Your task to perform on an android device: find which apps use the phone's location Image 0: 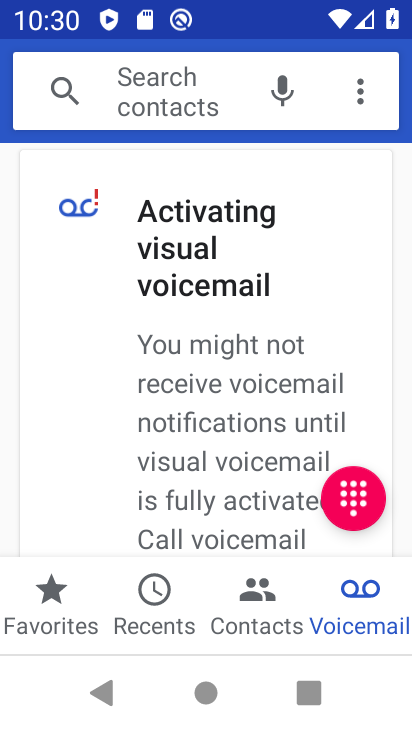
Step 0: press home button
Your task to perform on an android device: find which apps use the phone's location Image 1: 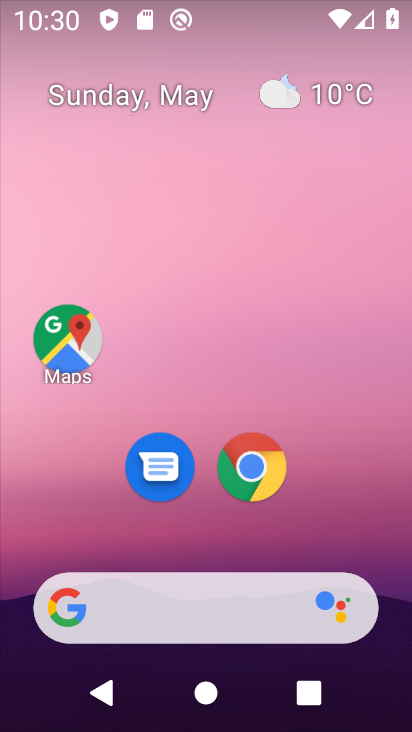
Step 1: drag from (262, 559) to (268, 1)
Your task to perform on an android device: find which apps use the phone's location Image 2: 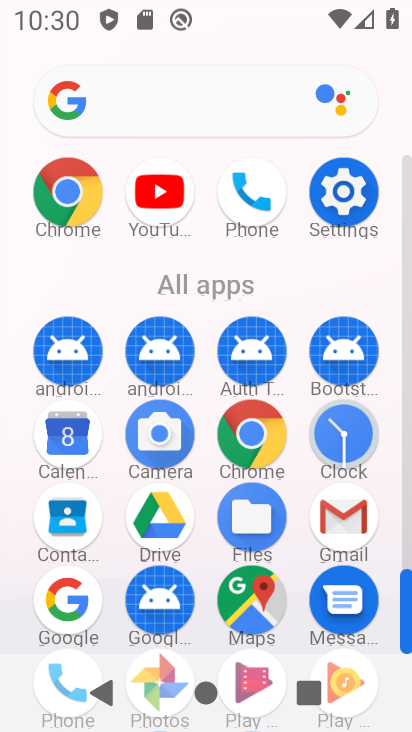
Step 2: drag from (336, 203) to (79, 243)
Your task to perform on an android device: find which apps use the phone's location Image 3: 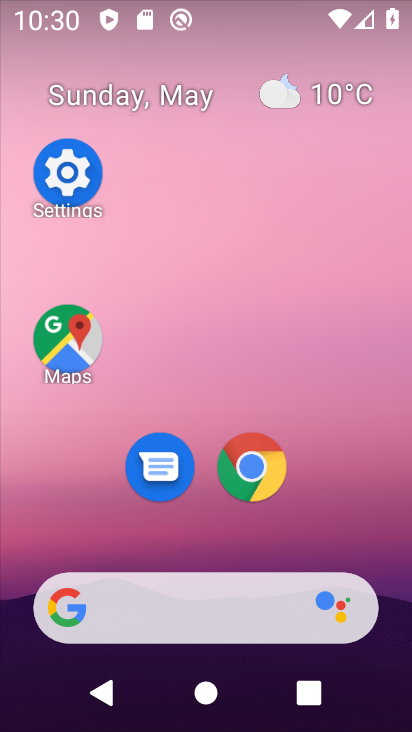
Step 3: click (76, 165)
Your task to perform on an android device: find which apps use the phone's location Image 4: 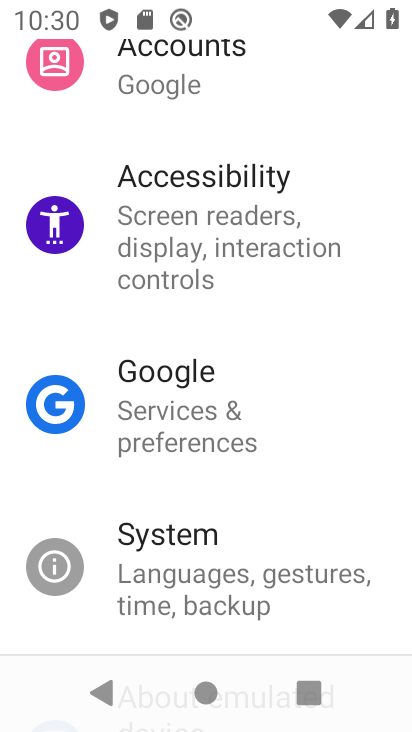
Step 4: drag from (243, 129) to (254, 478)
Your task to perform on an android device: find which apps use the phone's location Image 5: 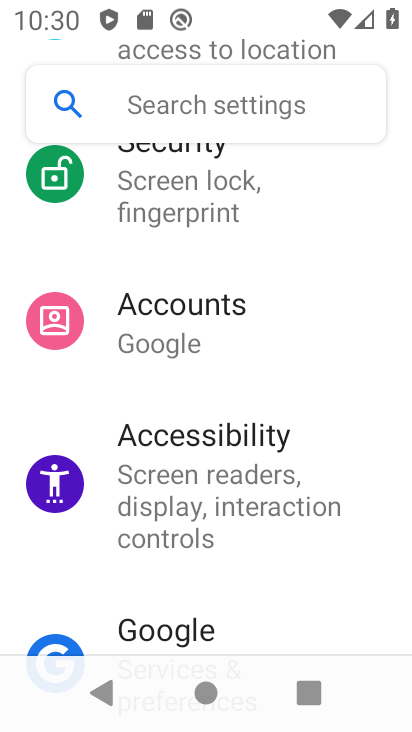
Step 5: drag from (297, 125) to (302, 371)
Your task to perform on an android device: find which apps use the phone's location Image 6: 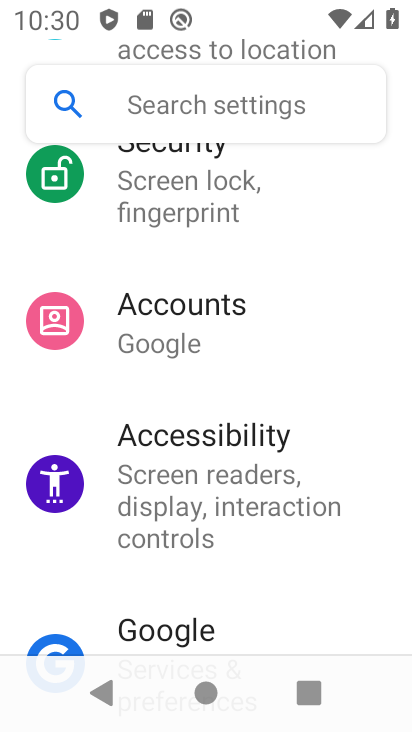
Step 6: drag from (334, 232) to (313, 497)
Your task to perform on an android device: find which apps use the phone's location Image 7: 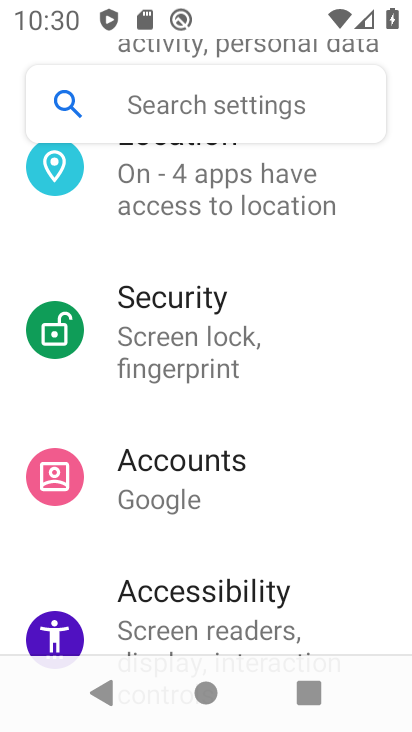
Step 7: click (268, 191)
Your task to perform on an android device: find which apps use the phone's location Image 8: 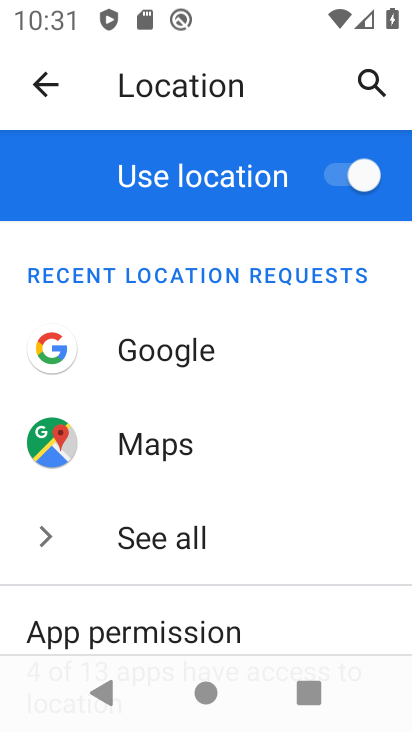
Step 8: task complete